Your task to perform on an android device: open app "LinkedIn" (install if not already installed) Image 0: 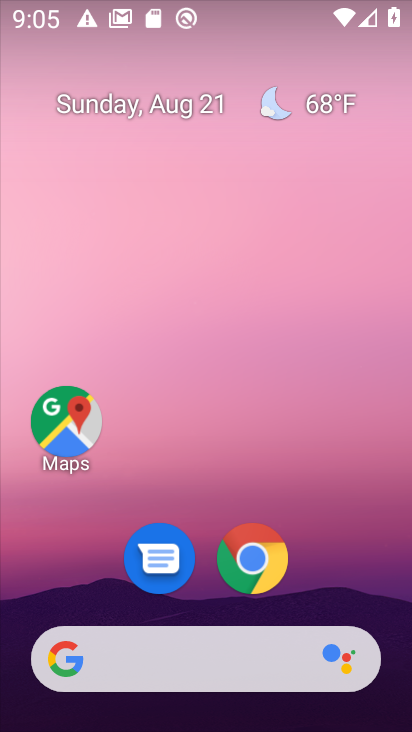
Step 0: drag from (312, 626) to (271, 251)
Your task to perform on an android device: open app "LinkedIn" (install if not already installed) Image 1: 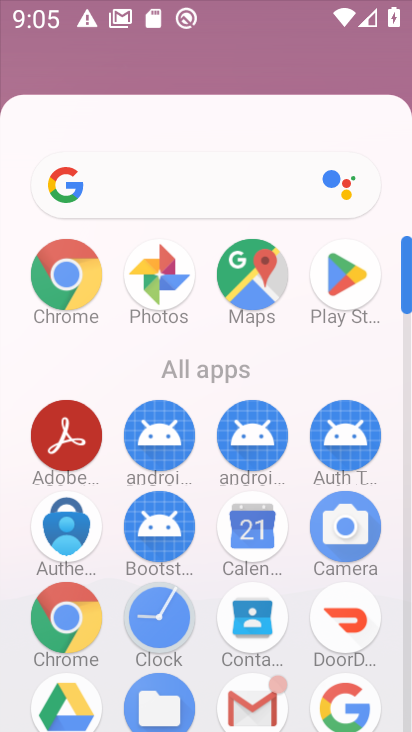
Step 1: click (271, 251)
Your task to perform on an android device: open app "LinkedIn" (install if not already installed) Image 2: 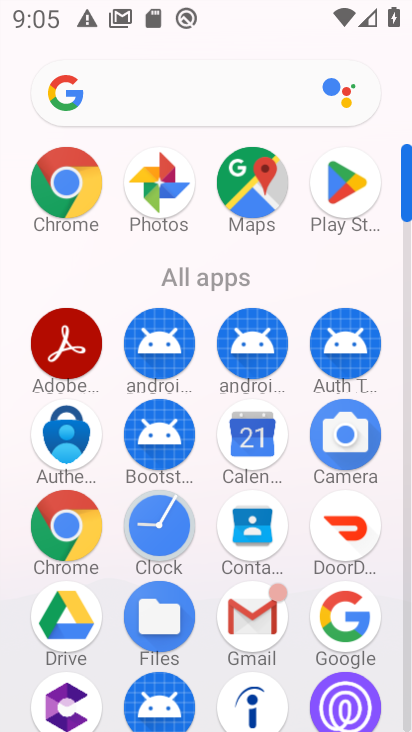
Step 2: click (365, 188)
Your task to perform on an android device: open app "LinkedIn" (install if not already installed) Image 3: 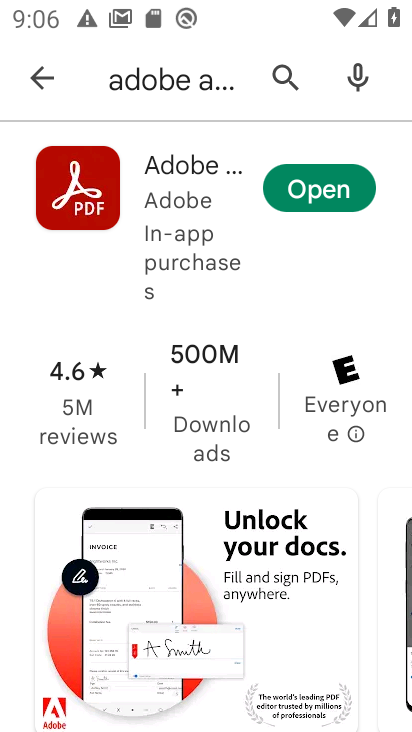
Step 3: click (305, 86)
Your task to perform on an android device: open app "LinkedIn" (install if not already installed) Image 4: 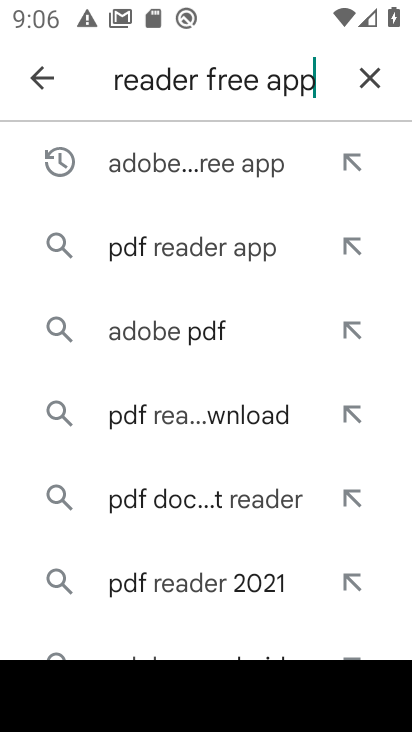
Step 4: click (381, 123)
Your task to perform on an android device: open app "LinkedIn" (install if not already installed) Image 5: 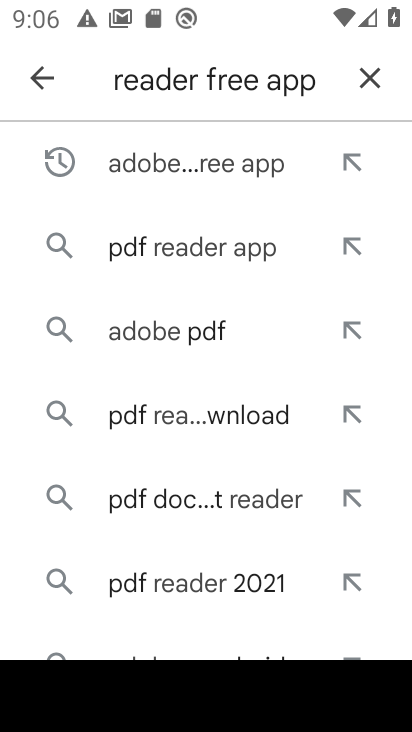
Step 5: click (372, 81)
Your task to perform on an android device: open app "LinkedIn" (install if not already installed) Image 6: 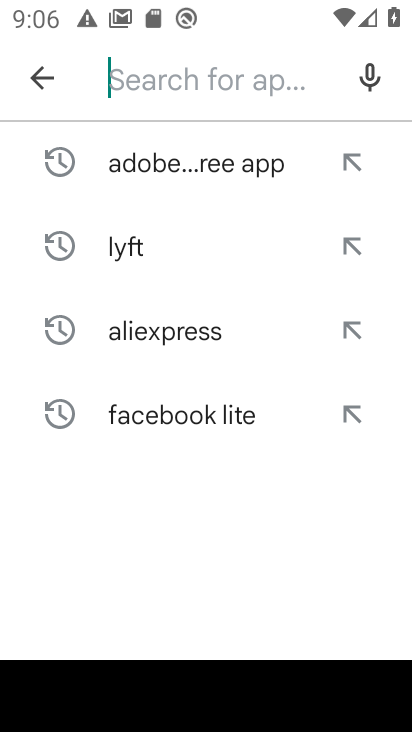
Step 6: type "linkedin"
Your task to perform on an android device: open app "LinkedIn" (install if not already installed) Image 7: 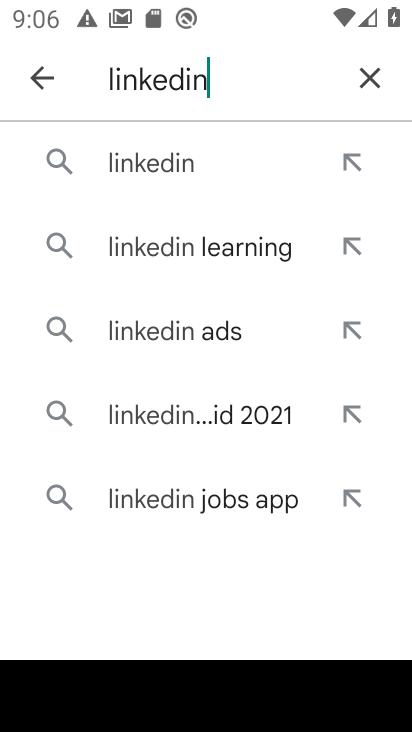
Step 7: click (226, 171)
Your task to perform on an android device: open app "LinkedIn" (install if not already installed) Image 8: 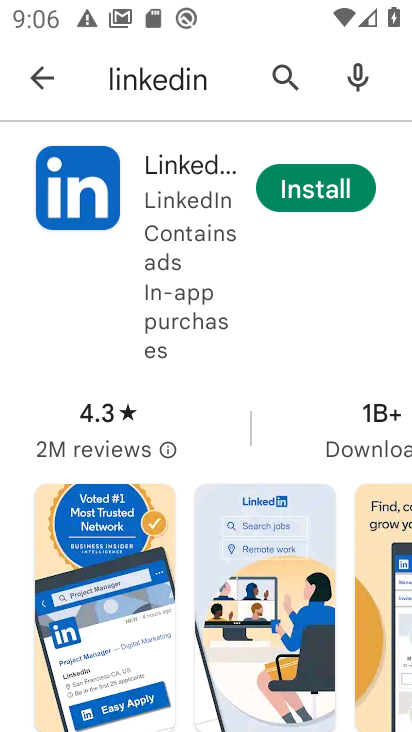
Step 8: click (283, 184)
Your task to perform on an android device: open app "LinkedIn" (install if not already installed) Image 9: 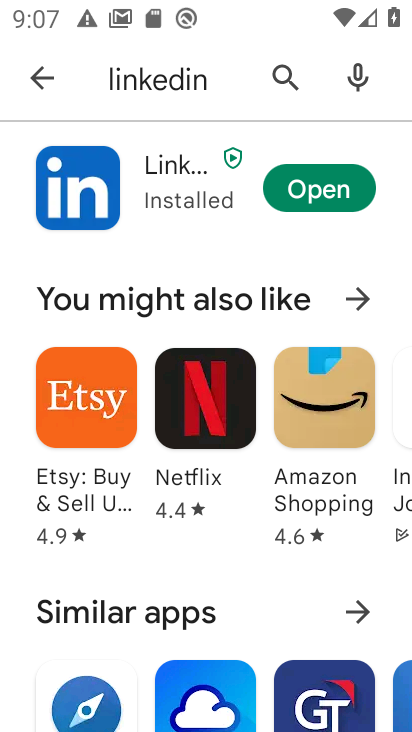
Step 9: click (351, 196)
Your task to perform on an android device: open app "LinkedIn" (install if not already installed) Image 10: 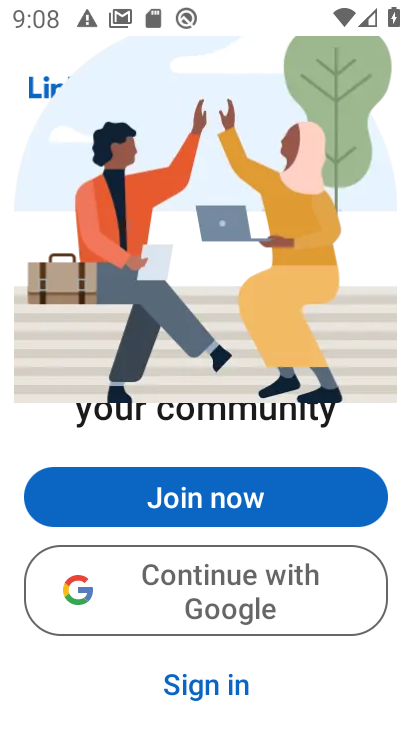
Step 10: task complete